Your task to perform on an android device: Open Google Chrome Image 0: 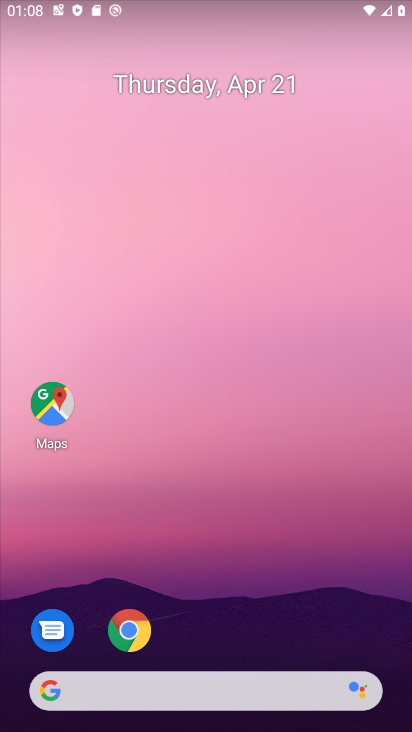
Step 0: click (127, 638)
Your task to perform on an android device: Open Google Chrome Image 1: 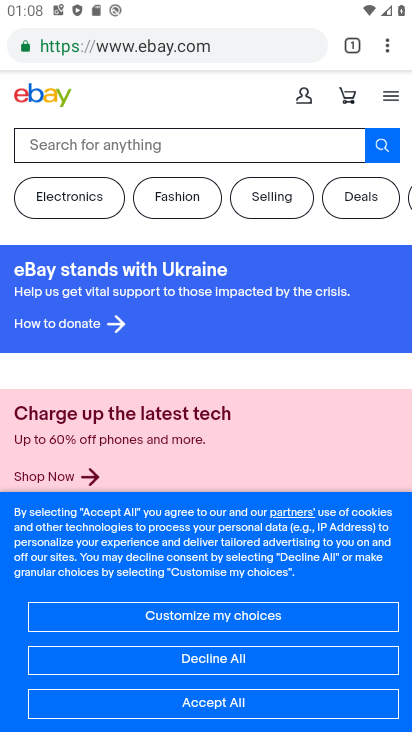
Step 1: click (248, 44)
Your task to perform on an android device: Open Google Chrome Image 2: 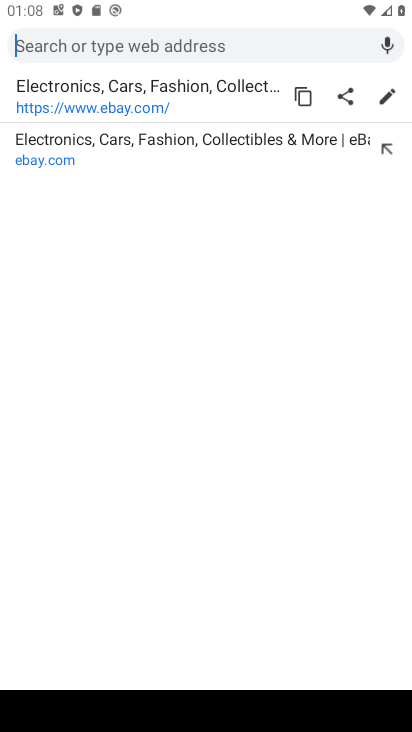
Step 2: task complete